Your task to perform on an android device: Go to notification settings Image 0: 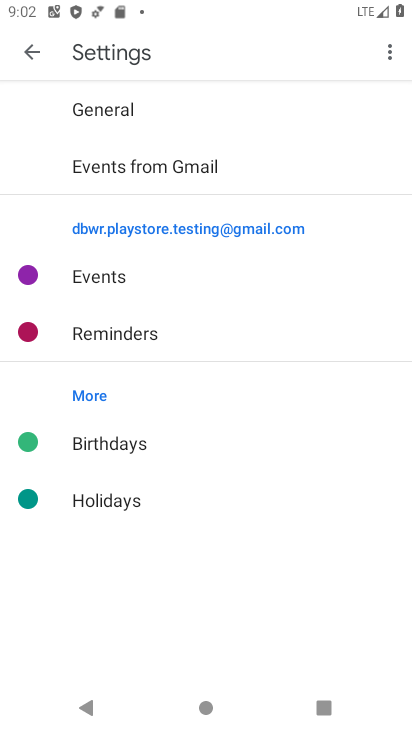
Step 0: press home button
Your task to perform on an android device: Go to notification settings Image 1: 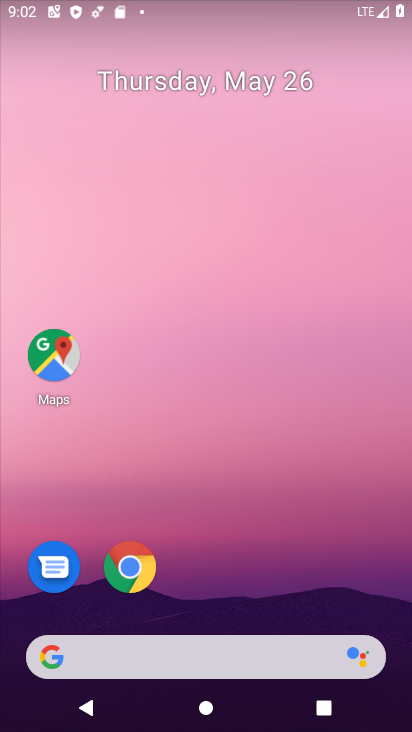
Step 1: drag from (254, 720) to (251, 12)
Your task to perform on an android device: Go to notification settings Image 2: 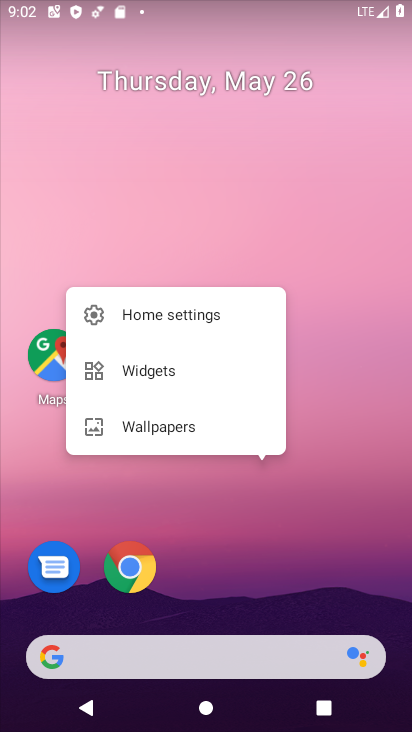
Step 2: press home button
Your task to perform on an android device: Go to notification settings Image 3: 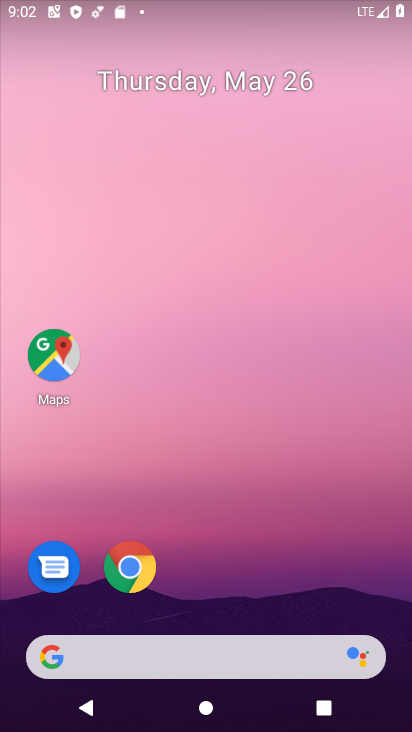
Step 3: drag from (266, 713) to (258, 34)
Your task to perform on an android device: Go to notification settings Image 4: 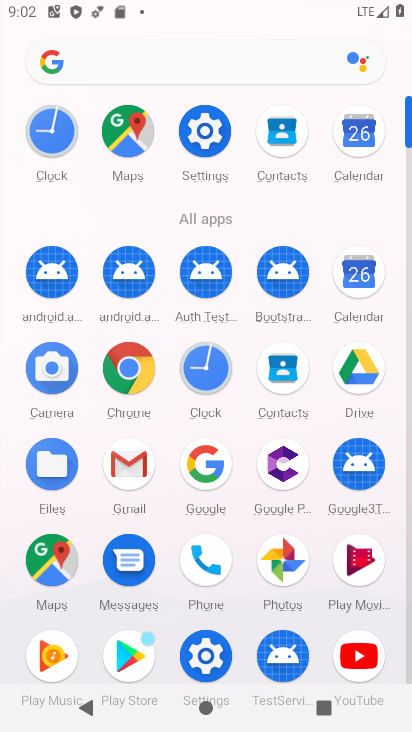
Step 4: click (194, 130)
Your task to perform on an android device: Go to notification settings Image 5: 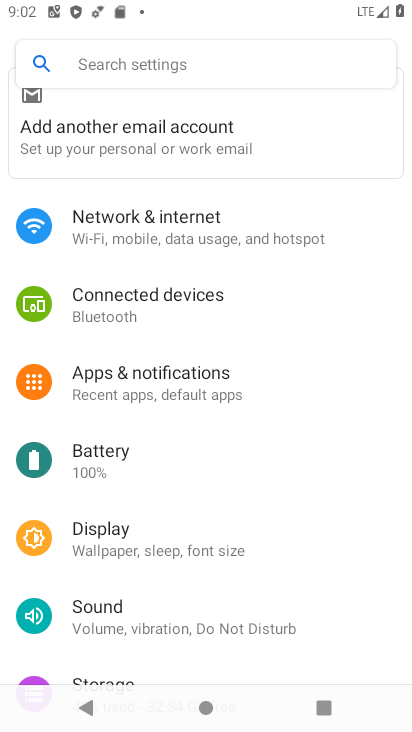
Step 5: click (156, 390)
Your task to perform on an android device: Go to notification settings Image 6: 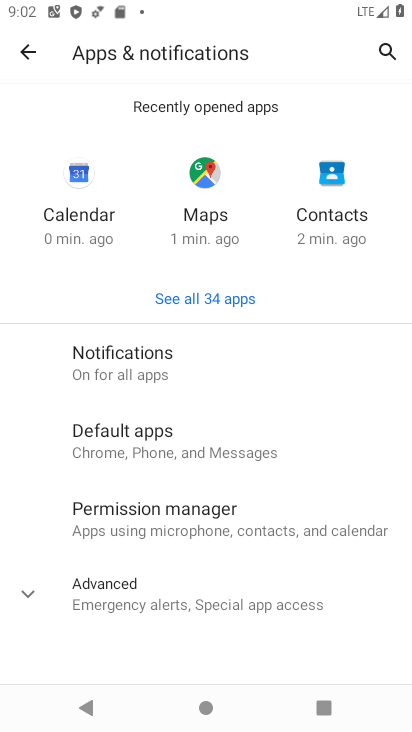
Step 6: task complete